Your task to perform on an android device: see tabs open on other devices in the chrome app Image 0: 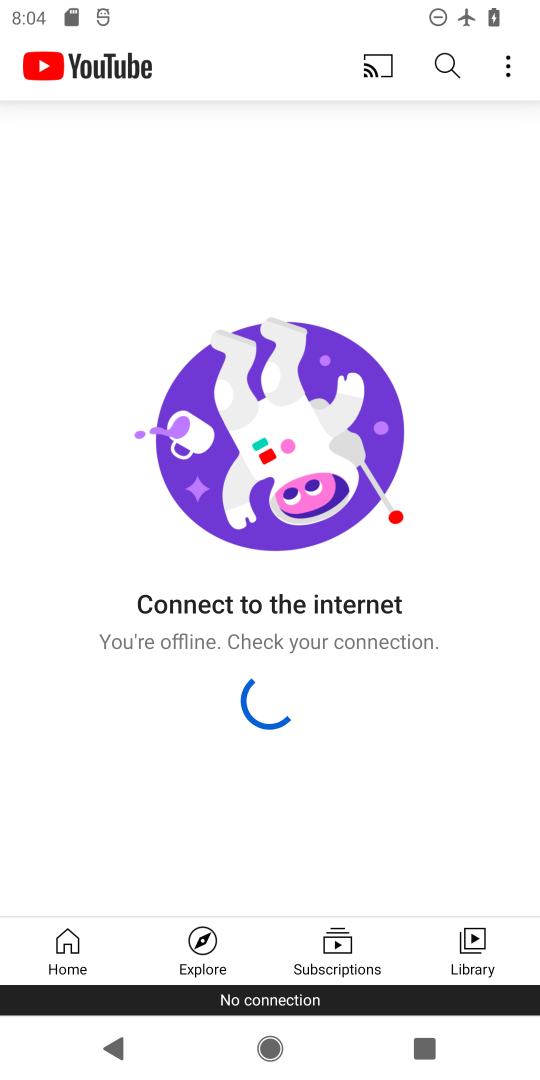
Step 0: press back button
Your task to perform on an android device: see tabs open on other devices in the chrome app Image 1: 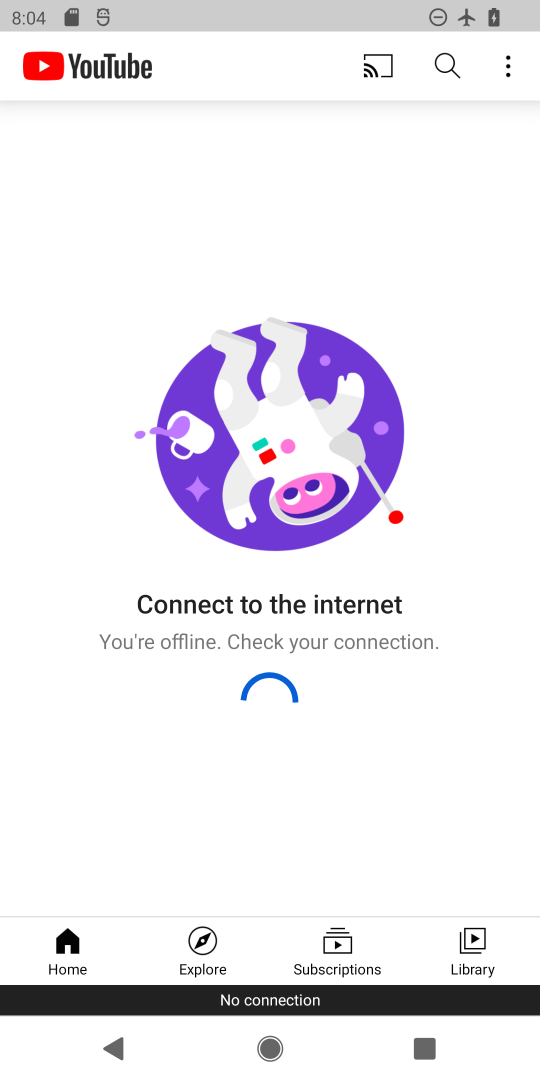
Step 1: press home button
Your task to perform on an android device: see tabs open on other devices in the chrome app Image 2: 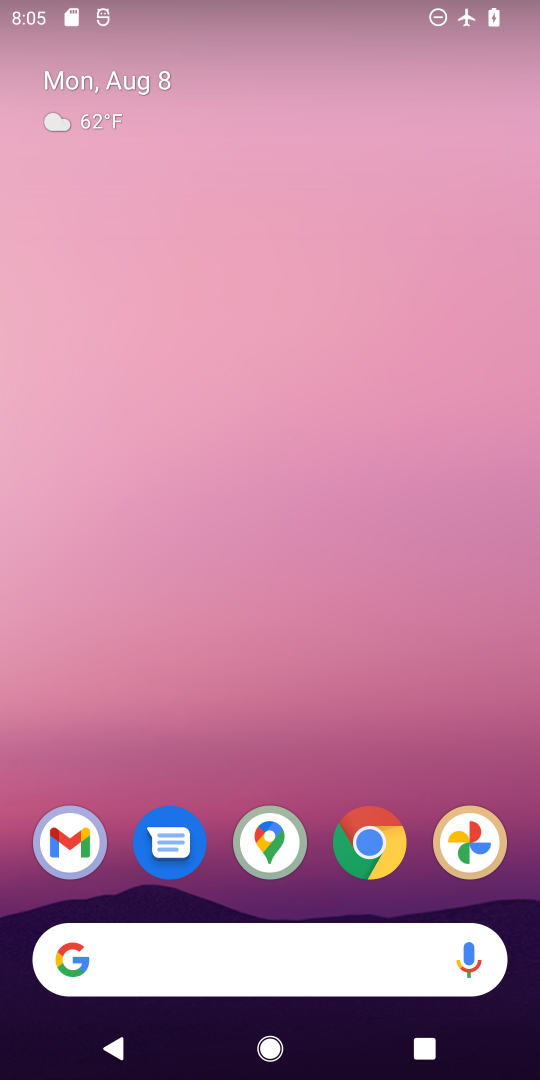
Step 2: click (382, 830)
Your task to perform on an android device: see tabs open on other devices in the chrome app Image 3: 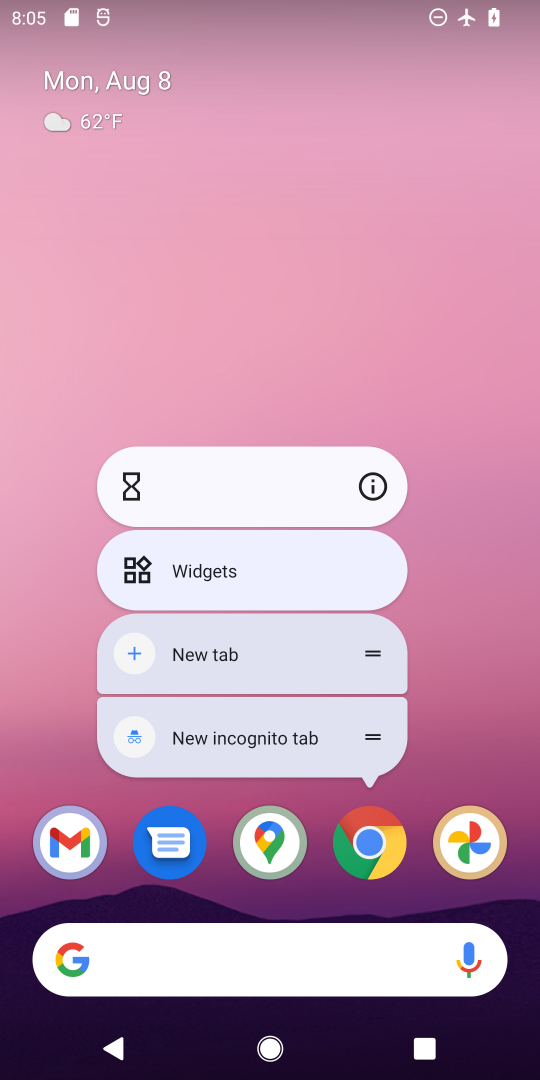
Step 3: click (353, 863)
Your task to perform on an android device: see tabs open on other devices in the chrome app Image 4: 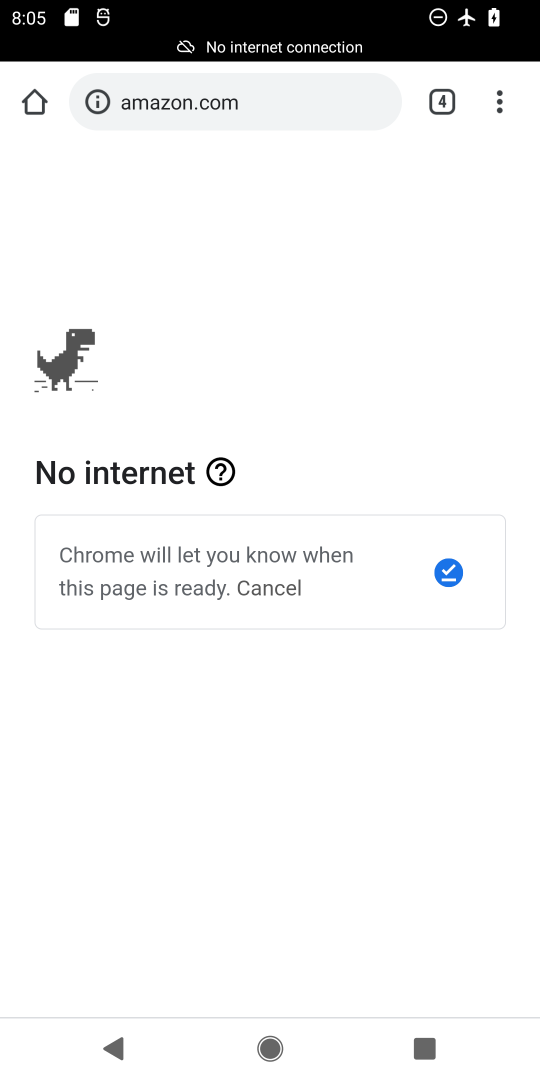
Step 4: click (423, 101)
Your task to perform on an android device: see tabs open on other devices in the chrome app Image 5: 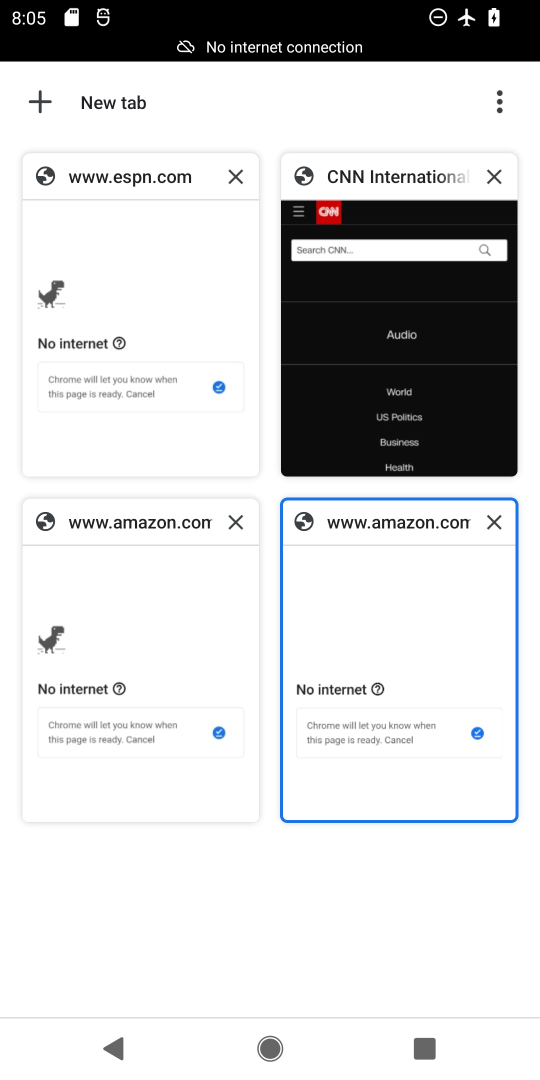
Step 5: click (25, 96)
Your task to perform on an android device: see tabs open on other devices in the chrome app Image 6: 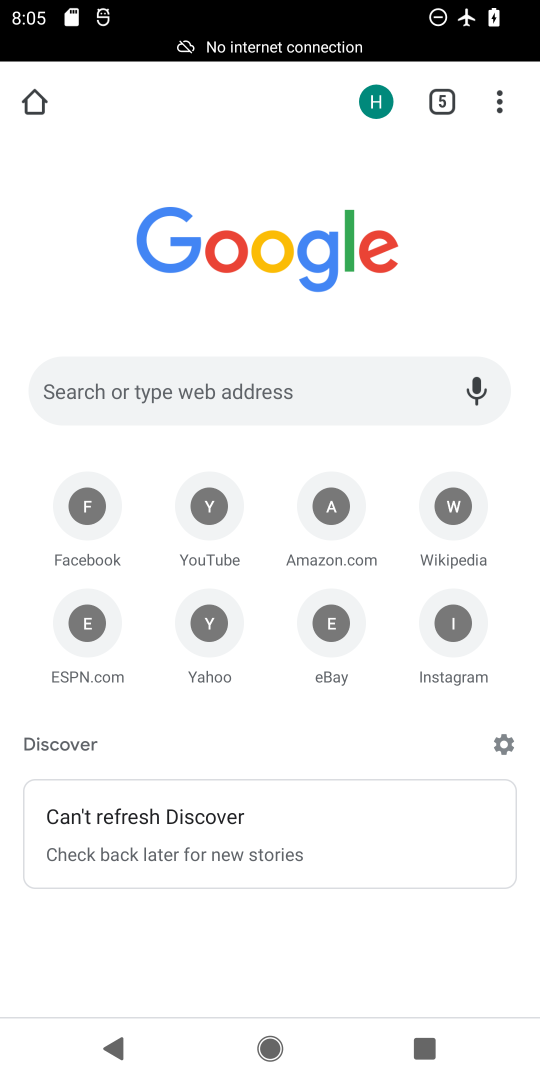
Step 6: task complete